Your task to perform on an android device: Show the shopping cart on newegg.com. Search for "logitech g pro" on newegg.com, select the first entry, add it to the cart, then select checkout. Image 0: 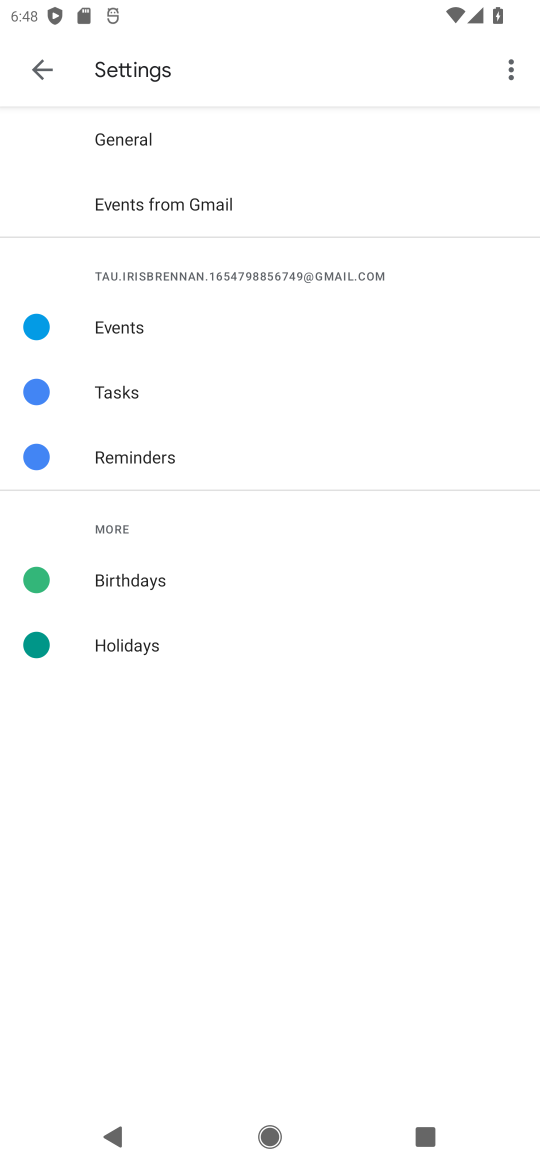
Step 0: press home button
Your task to perform on an android device: Show the shopping cart on newegg.com. Search for "logitech g pro" on newegg.com, select the first entry, add it to the cart, then select checkout. Image 1: 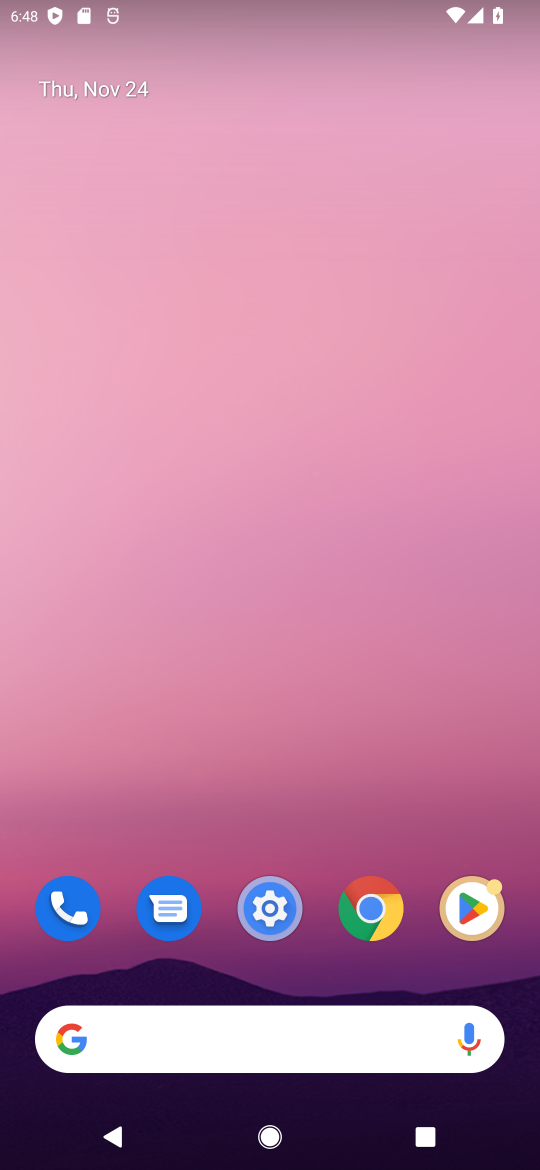
Step 1: click (289, 1073)
Your task to perform on an android device: Show the shopping cart on newegg.com. Search for "logitech g pro" on newegg.com, select the first entry, add it to the cart, then select checkout. Image 2: 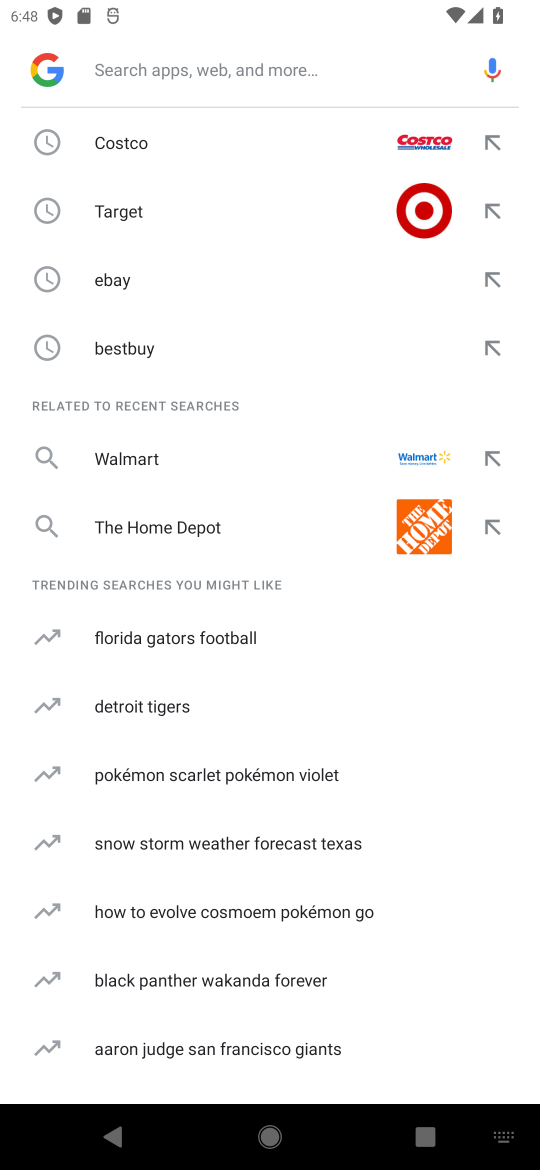
Step 2: type "newegg.com"
Your task to perform on an android device: Show the shopping cart on newegg.com. Search for "logitech g pro" on newegg.com, select the first entry, add it to the cart, then select checkout. Image 3: 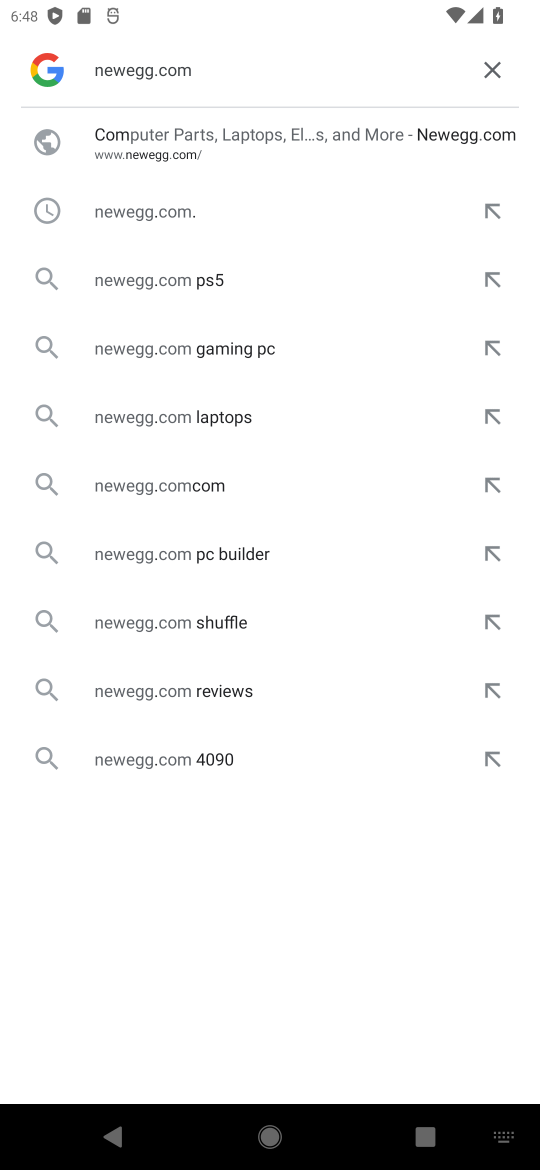
Step 3: click (241, 153)
Your task to perform on an android device: Show the shopping cart on newegg.com. Search for "logitech g pro" on newegg.com, select the first entry, add it to the cart, then select checkout. Image 4: 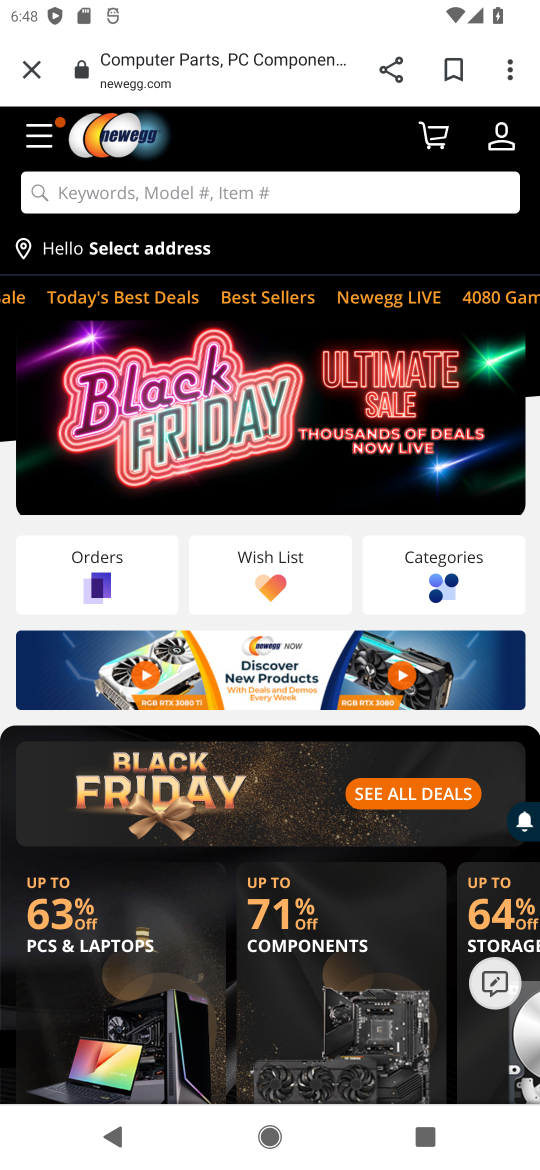
Step 4: click (383, 204)
Your task to perform on an android device: Show the shopping cart on newegg.com. Search for "logitech g pro" on newegg.com, select the first entry, add it to the cart, then select checkout. Image 5: 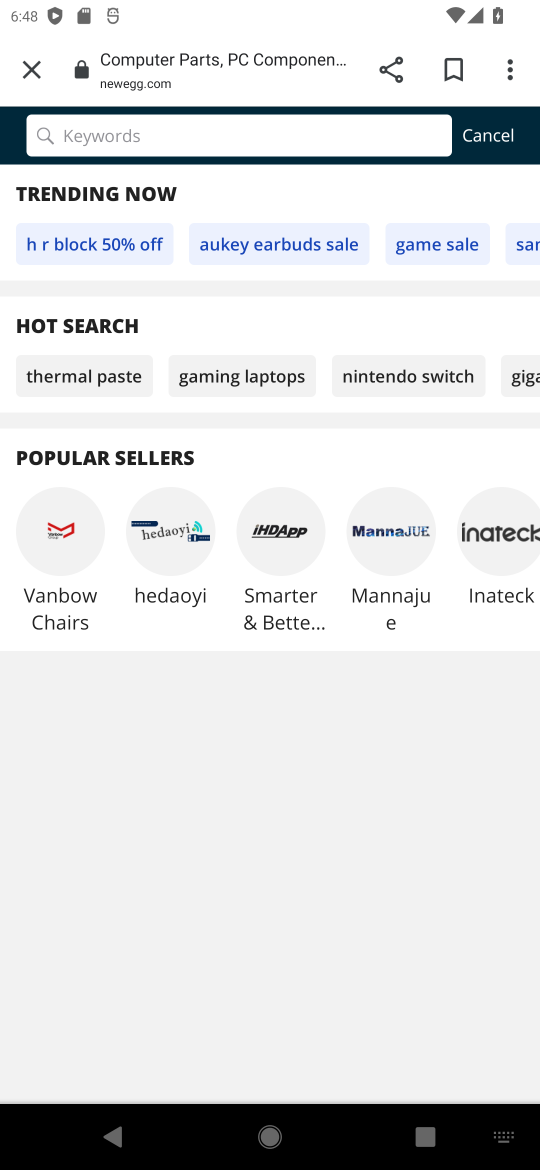
Step 5: type "logitech g pro"
Your task to perform on an android device: Show the shopping cart on newegg.com. Search for "logitech g pro" on newegg.com, select the first entry, add it to the cart, then select checkout. Image 6: 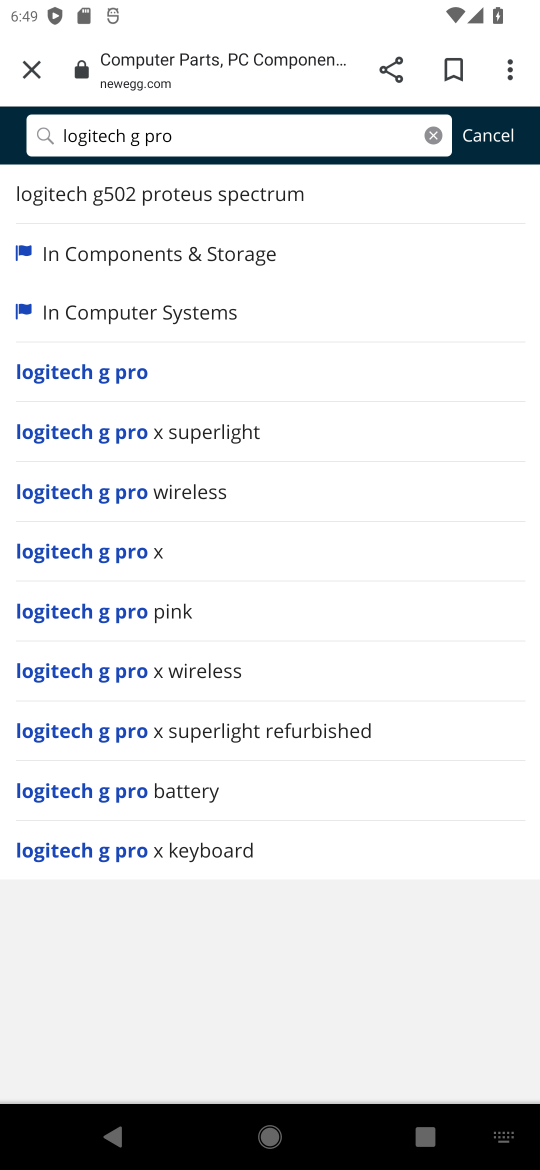
Step 6: click (259, 197)
Your task to perform on an android device: Show the shopping cart on newegg.com. Search for "logitech g pro" on newegg.com, select the first entry, add it to the cart, then select checkout. Image 7: 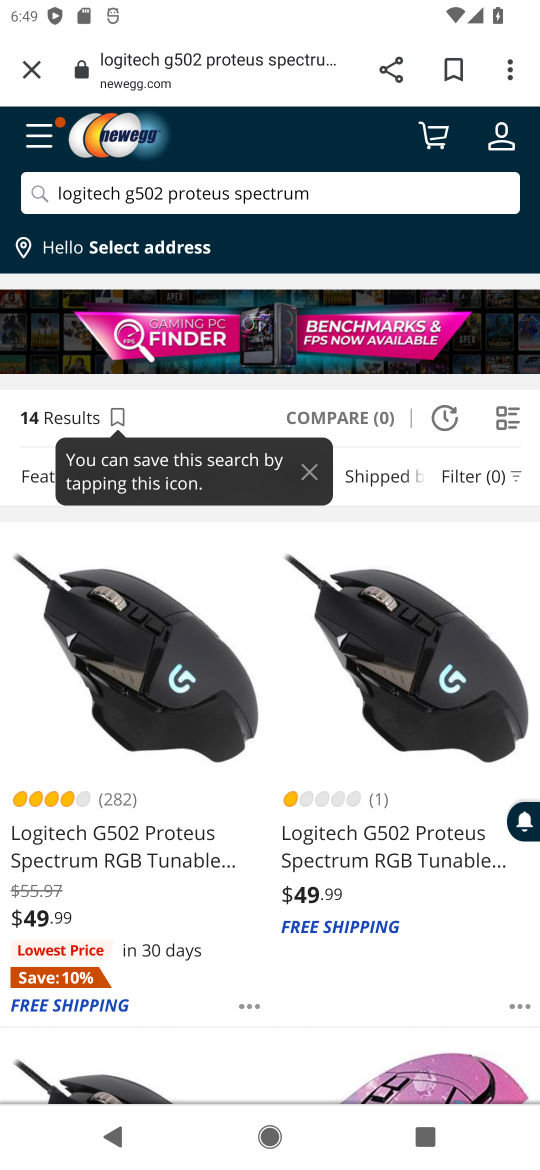
Step 7: click (82, 924)
Your task to perform on an android device: Show the shopping cart on newegg.com. Search for "logitech g pro" on newegg.com, select the first entry, add it to the cart, then select checkout. Image 8: 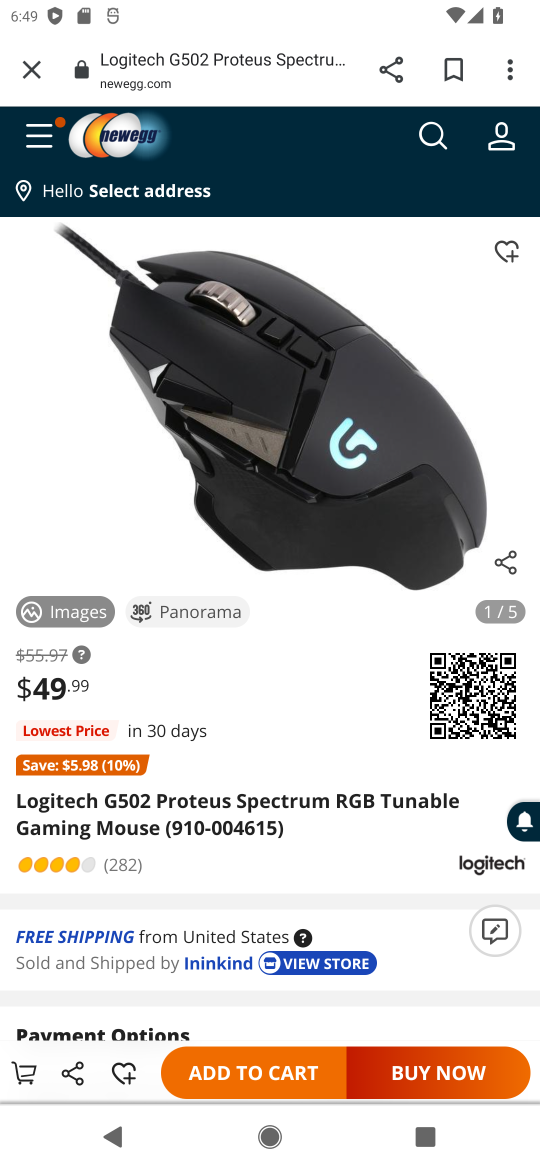
Step 8: click (210, 1076)
Your task to perform on an android device: Show the shopping cart on newegg.com. Search for "logitech g pro" on newegg.com, select the first entry, add it to the cart, then select checkout. Image 9: 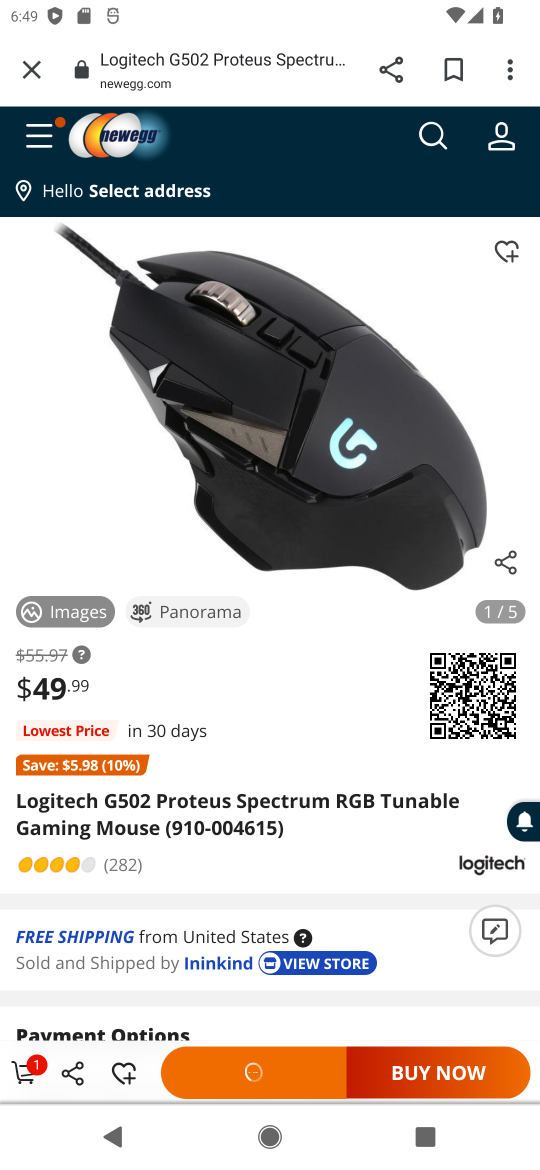
Step 9: task complete